Your task to perform on an android device: allow notifications from all sites in the chrome app Image 0: 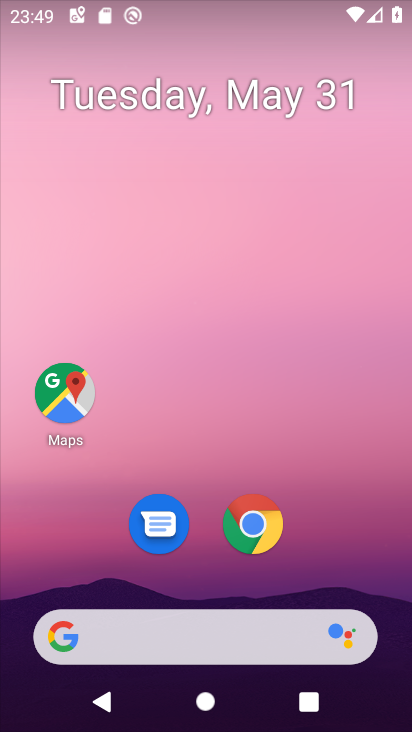
Step 0: click (255, 524)
Your task to perform on an android device: allow notifications from all sites in the chrome app Image 1: 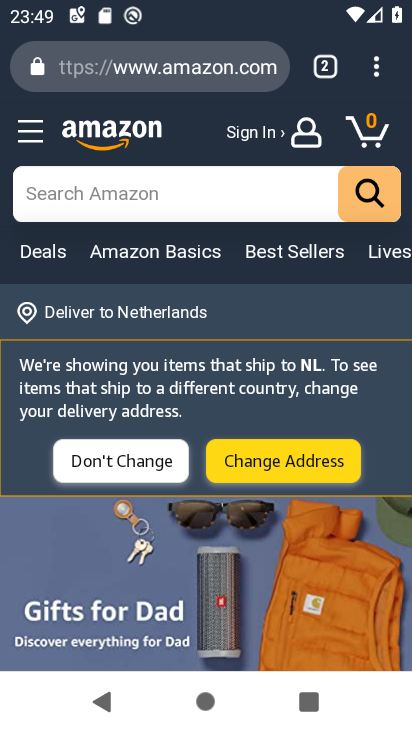
Step 1: click (379, 71)
Your task to perform on an android device: allow notifications from all sites in the chrome app Image 2: 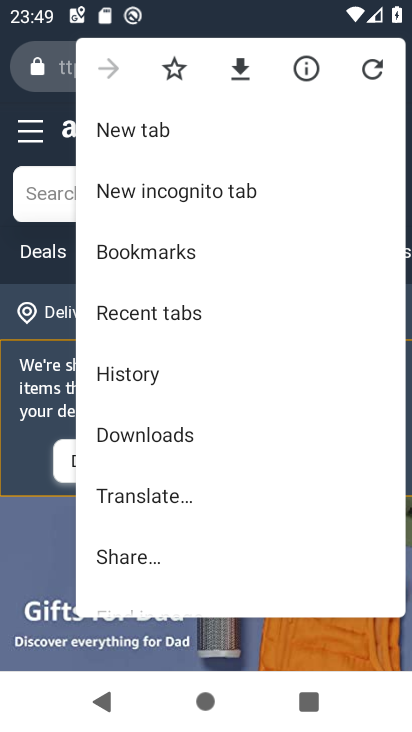
Step 2: drag from (254, 487) to (263, 150)
Your task to perform on an android device: allow notifications from all sites in the chrome app Image 3: 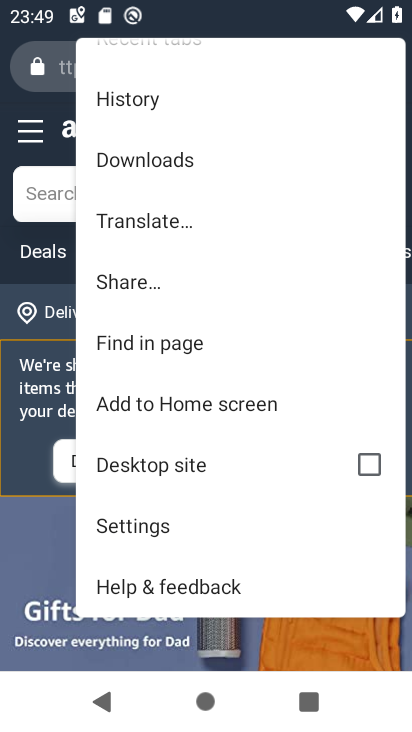
Step 3: click (170, 517)
Your task to perform on an android device: allow notifications from all sites in the chrome app Image 4: 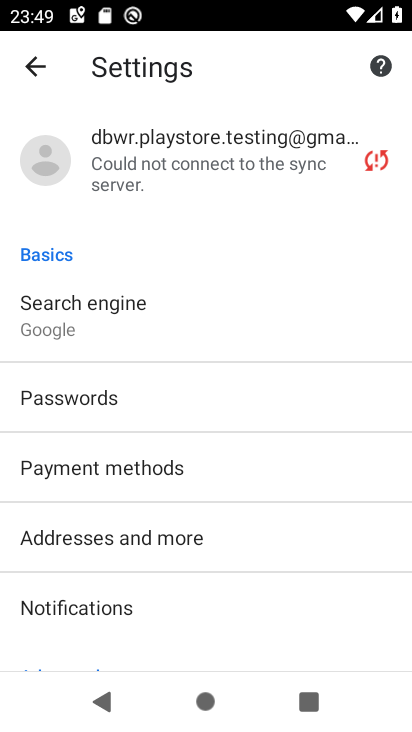
Step 4: click (223, 605)
Your task to perform on an android device: allow notifications from all sites in the chrome app Image 5: 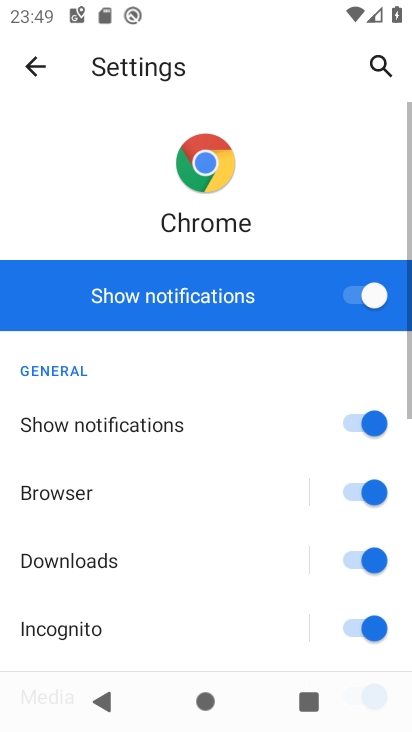
Step 5: task complete